Your task to perform on an android device: See recent photos Image 0: 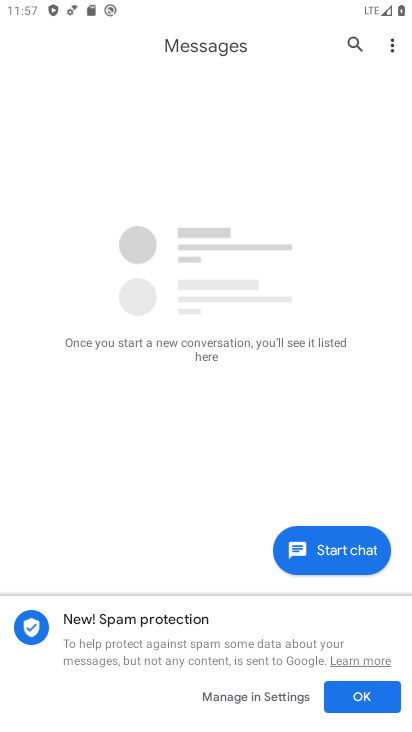
Step 0: press home button
Your task to perform on an android device: See recent photos Image 1: 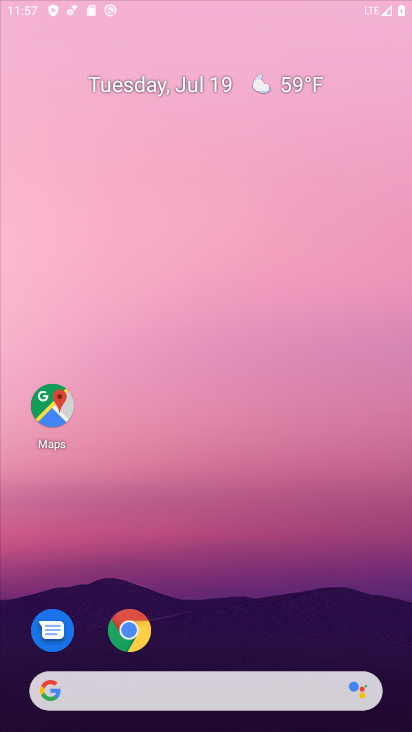
Step 1: press home button
Your task to perform on an android device: See recent photos Image 2: 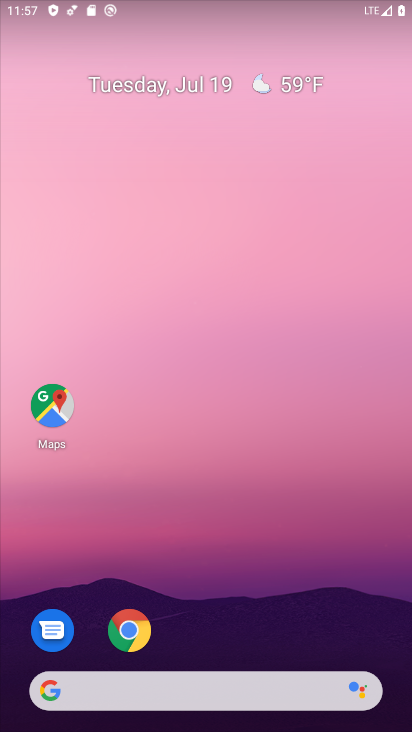
Step 2: drag from (175, 614) to (213, 258)
Your task to perform on an android device: See recent photos Image 3: 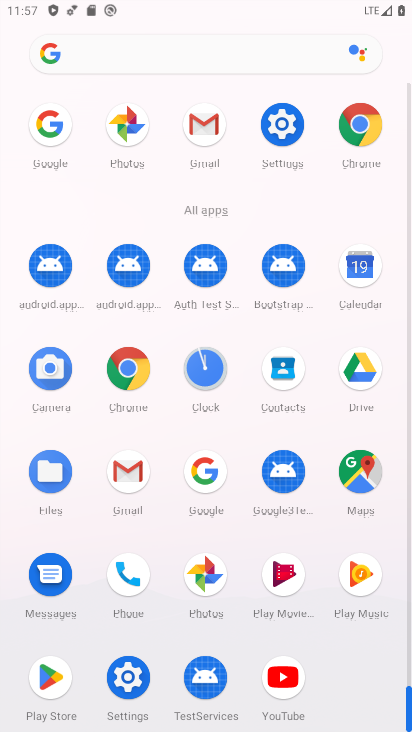
Step 3: click (218, 590)
Your task to perform on an android device: See recent photos Image 4: 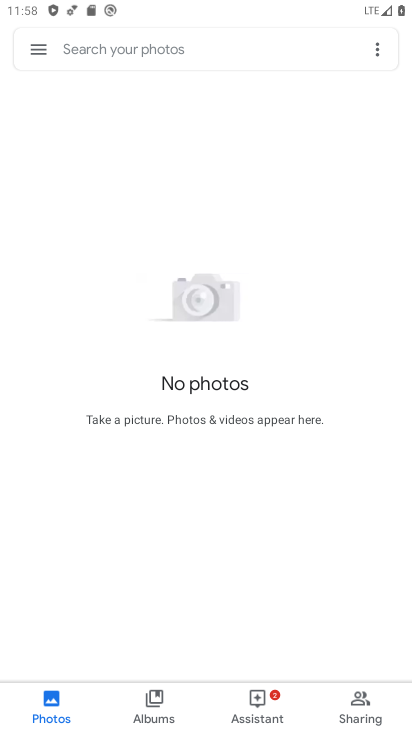
Step 4: task complete